Your task to perform on an android device: open app "McDonald's" (install if not already installed) and go to login screen Image 0: 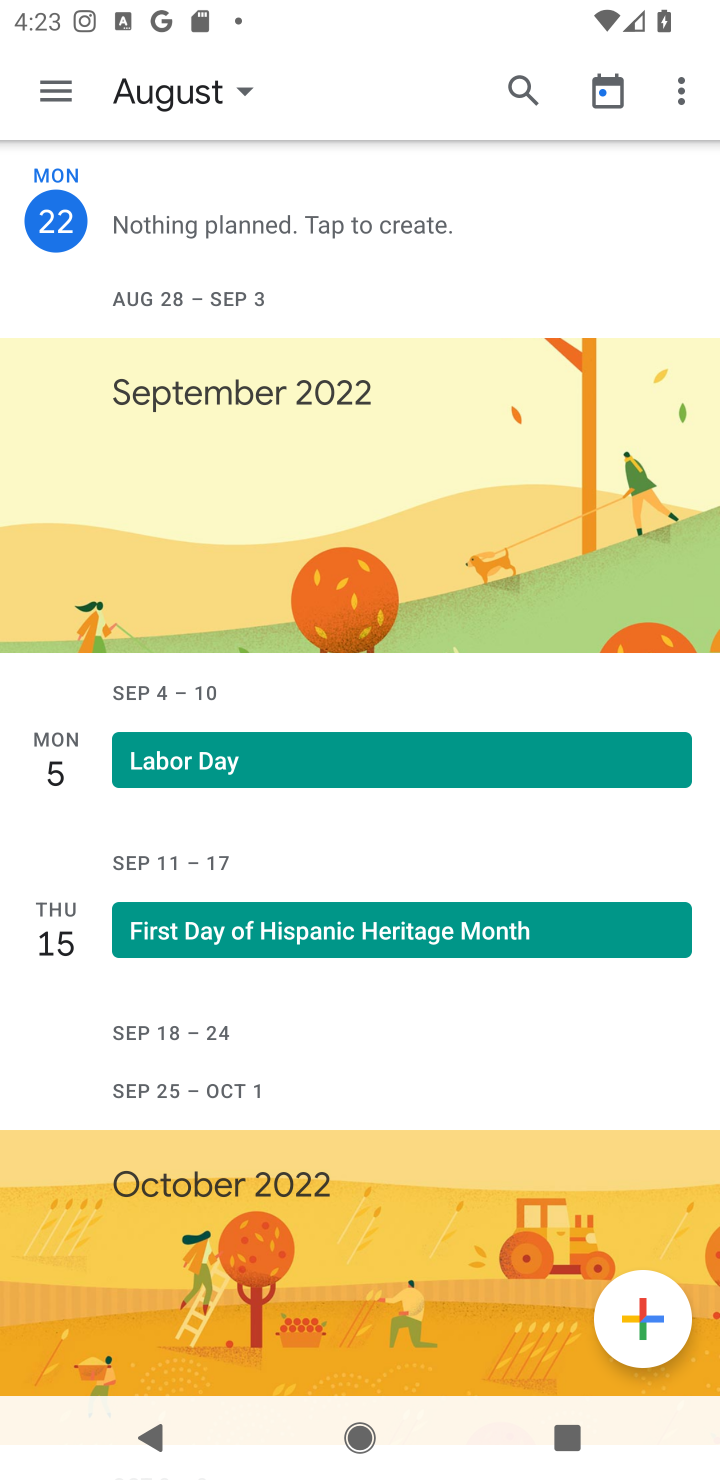
Step 0: press home button
Your task to perform on an android device: open app "McDonald's" (install if not already installed) and go to login screen Image 1: 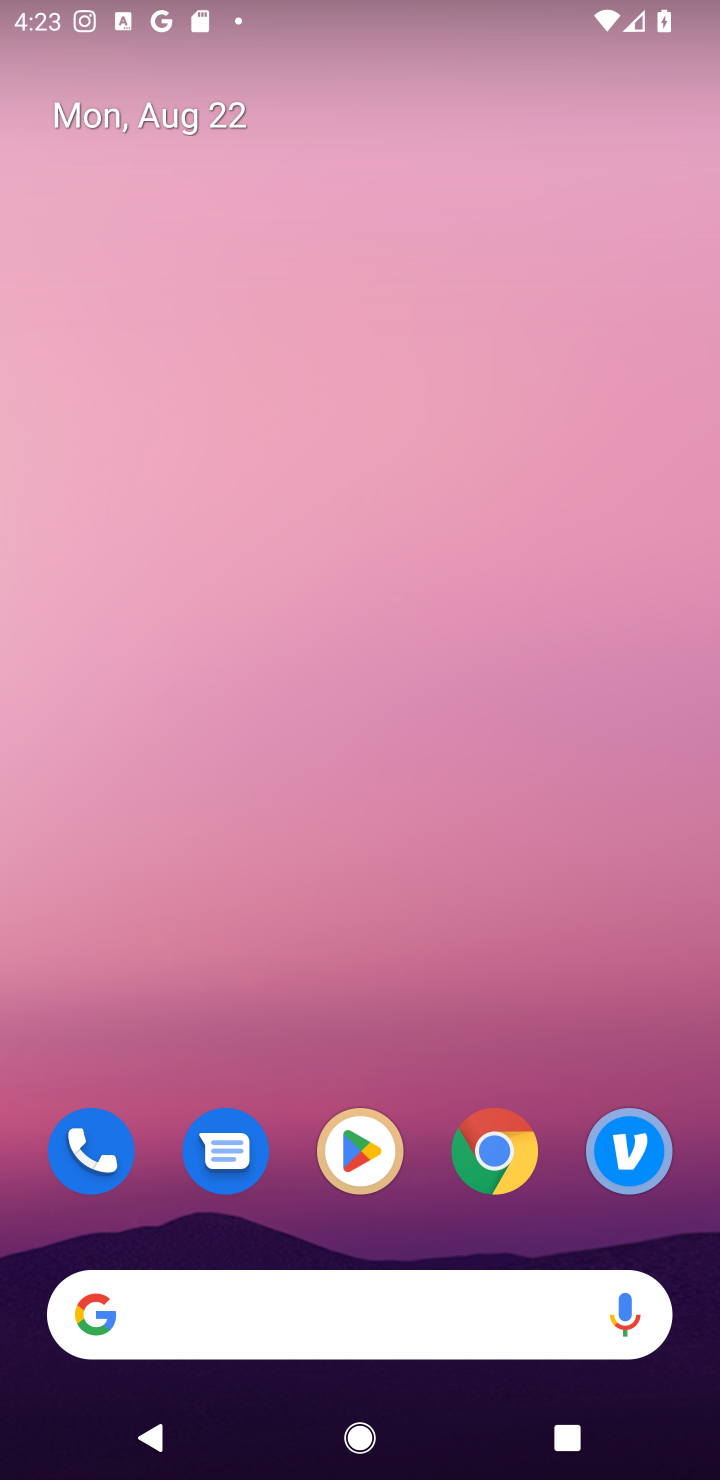
Step 1: click (362, 1158)
Your task to perform on an android device: open app "McDonald's" (install if not already installed) and go to login screen Image 2: 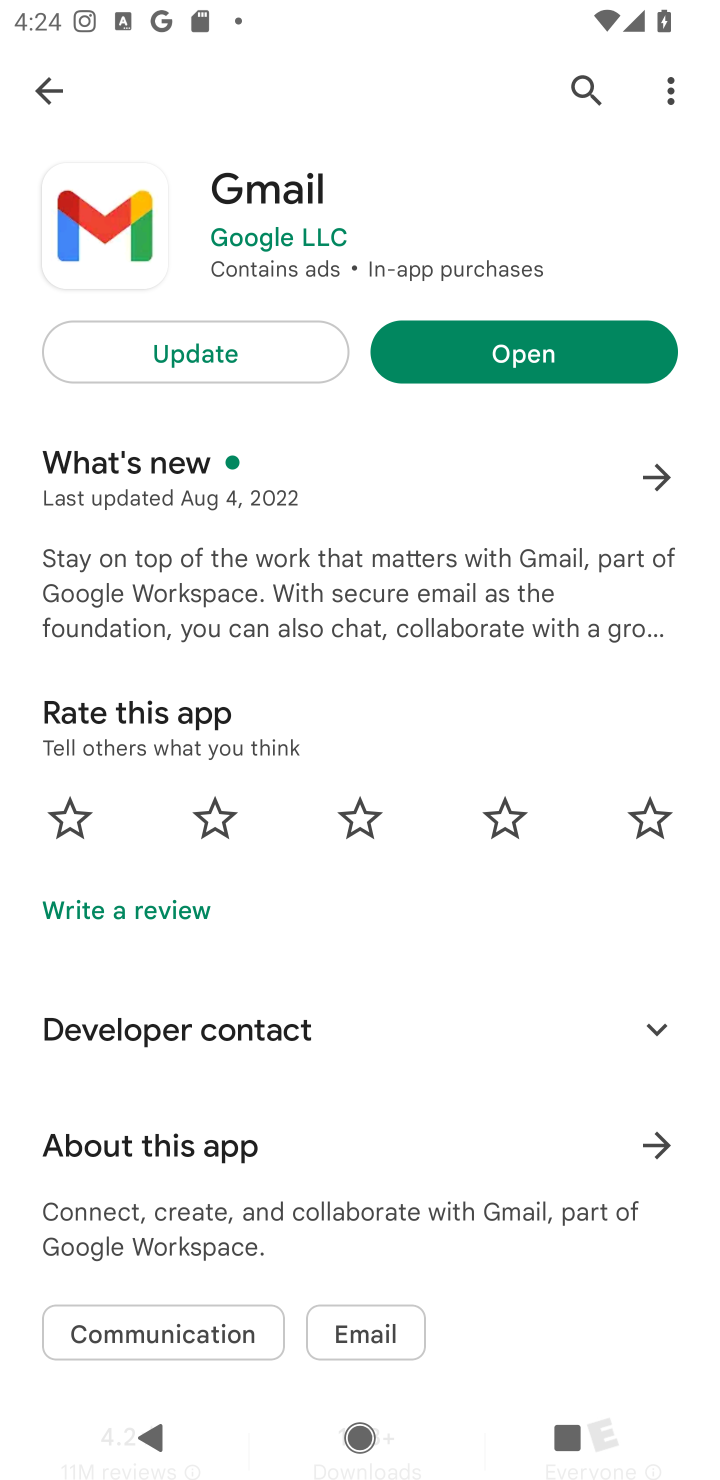
Step 2: click (589, 81)
Your task to perform on an android device: open app "McDonald's" (install if not already installed) and go to login screen Image 3: 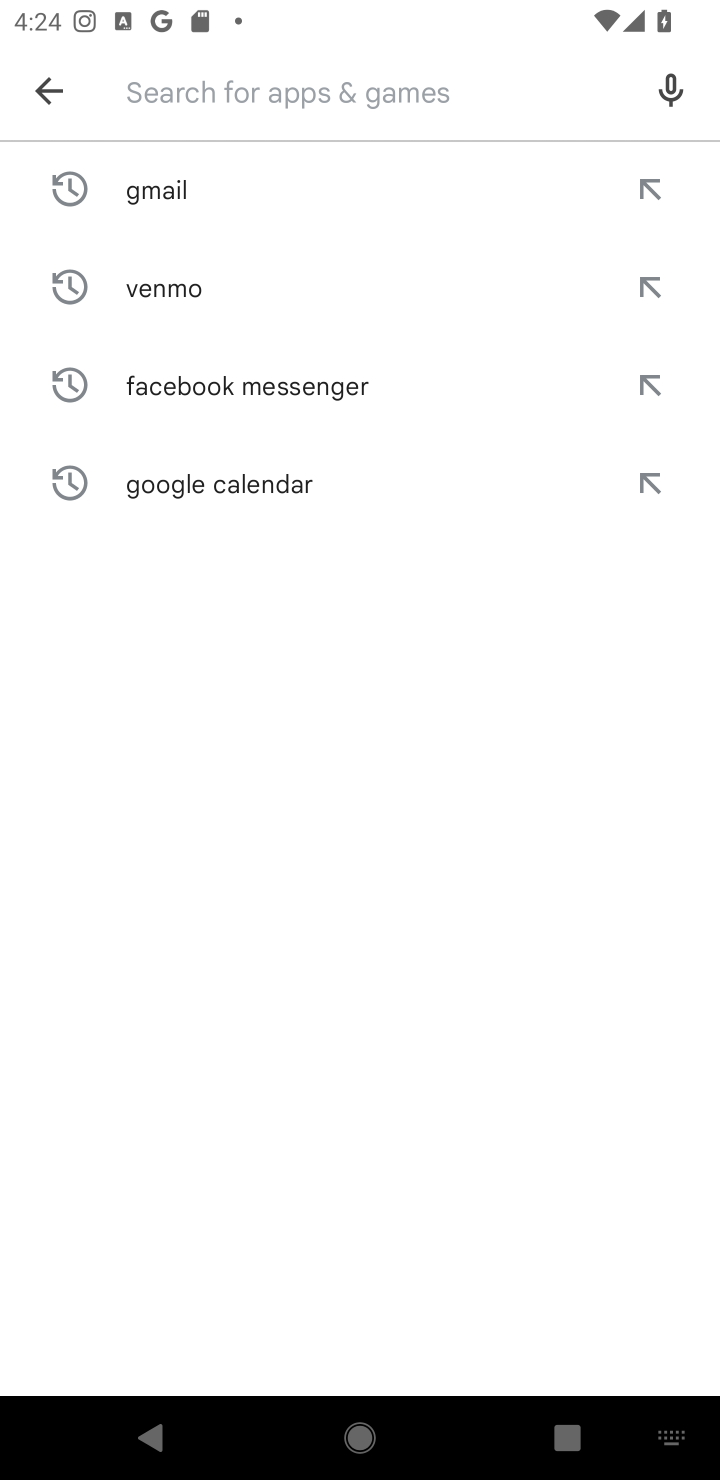
Step 3: type "McDonald's"
Your task to perform on an android device: open app "McDonald's" (install if not already installed) and go to login screen Image 4: 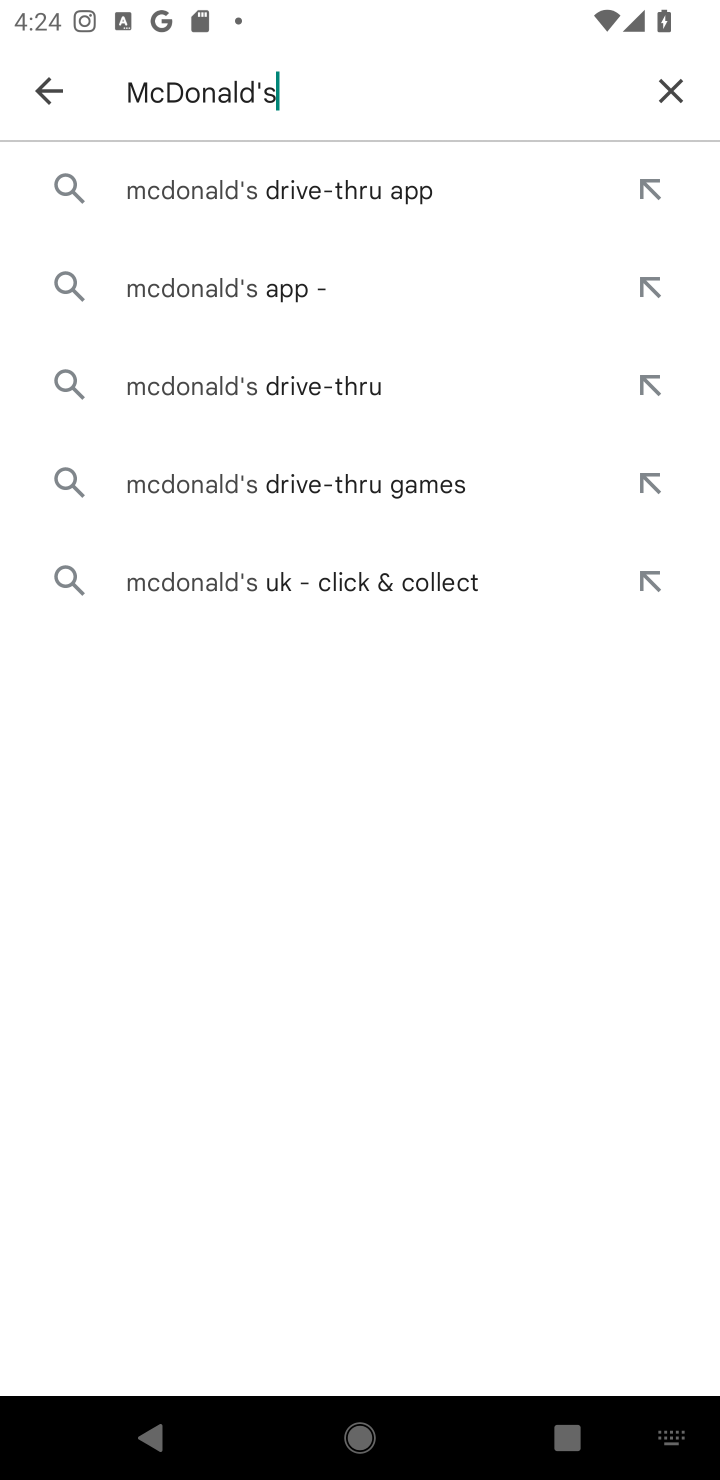
Step 4: click (283, 199)
Your task to perform on an android device: open app "McDonald's" (install if not already installed) and go to login screen Image 5: 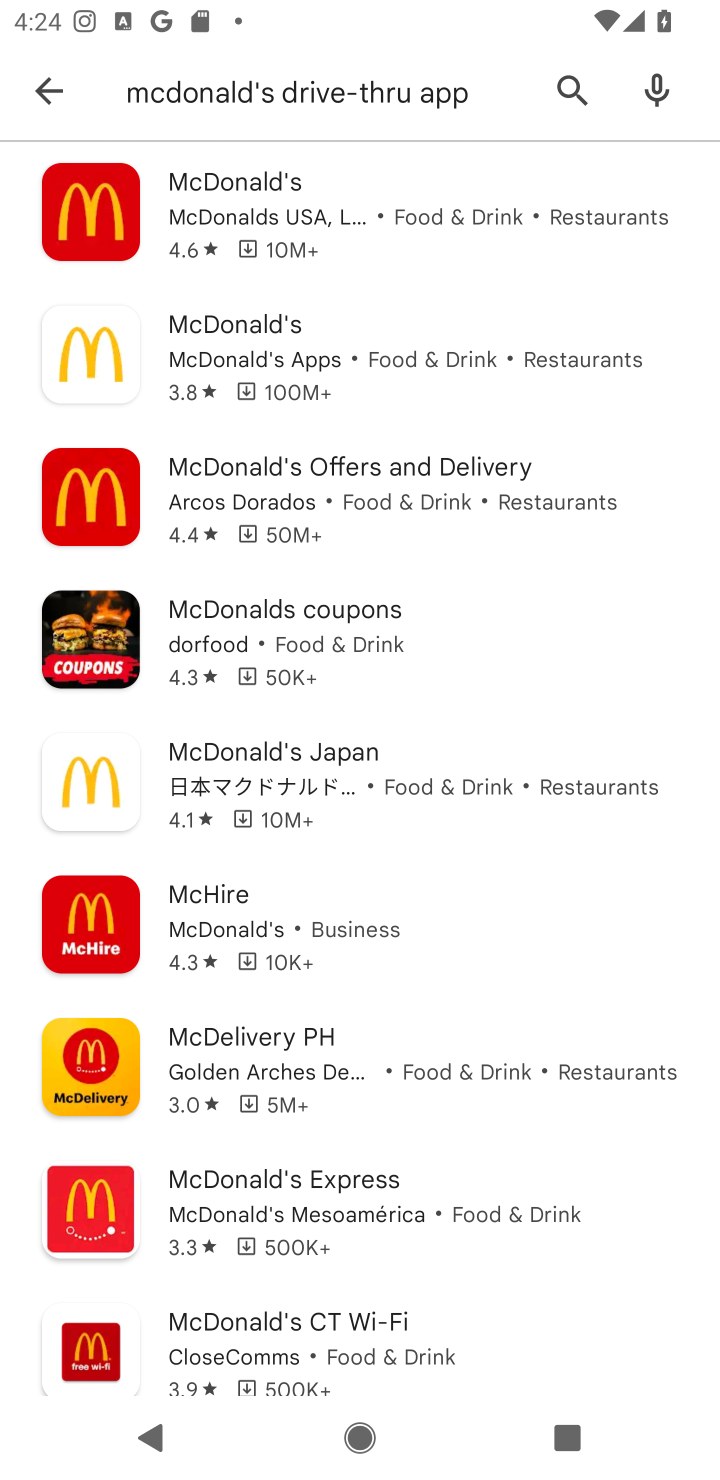
Step 5: click (314, 232)
Your task to perform on an android device: open app "McDonald's" (install if not already installed) and go to login screen Image 6: 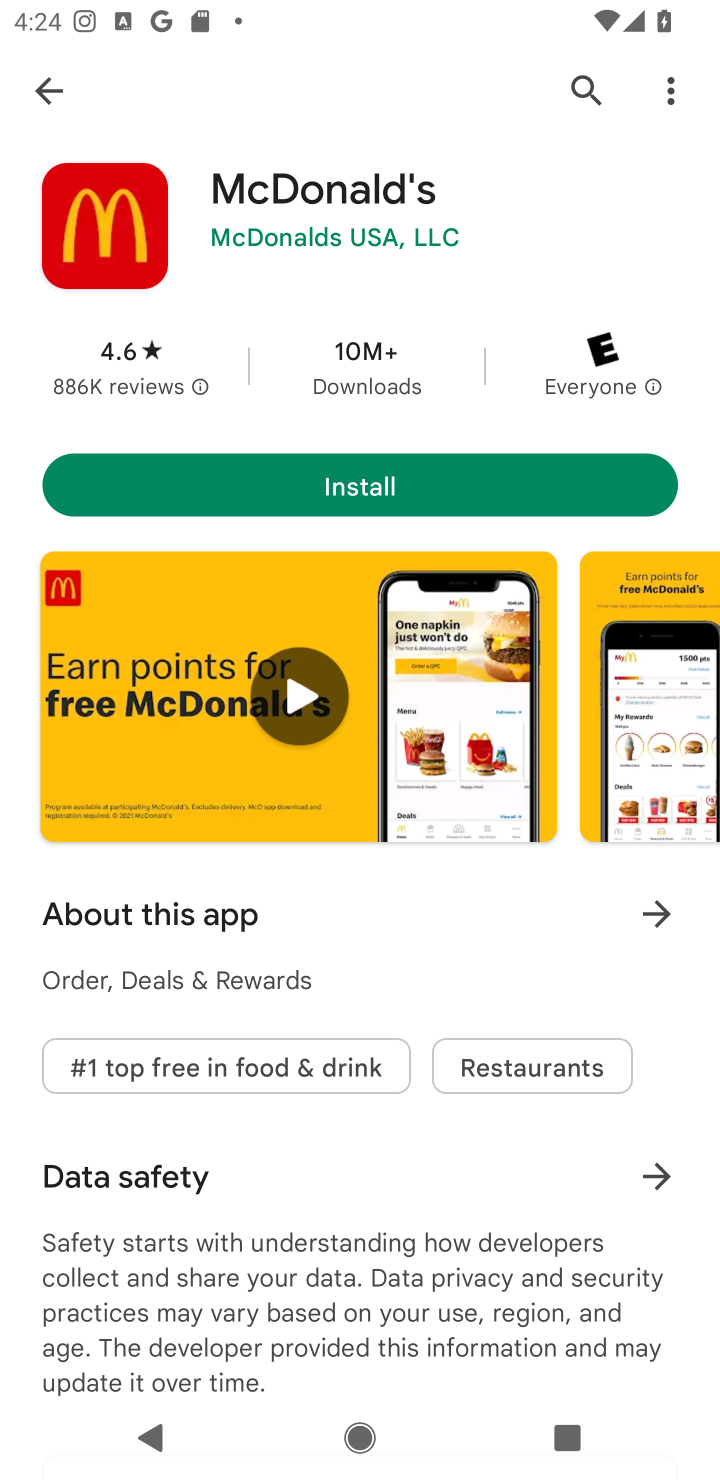
Step 6: click (386, 465)
Your task to perform on an android device: open app "McDonald's" (install if not already installed) and go to login screen Image 7: 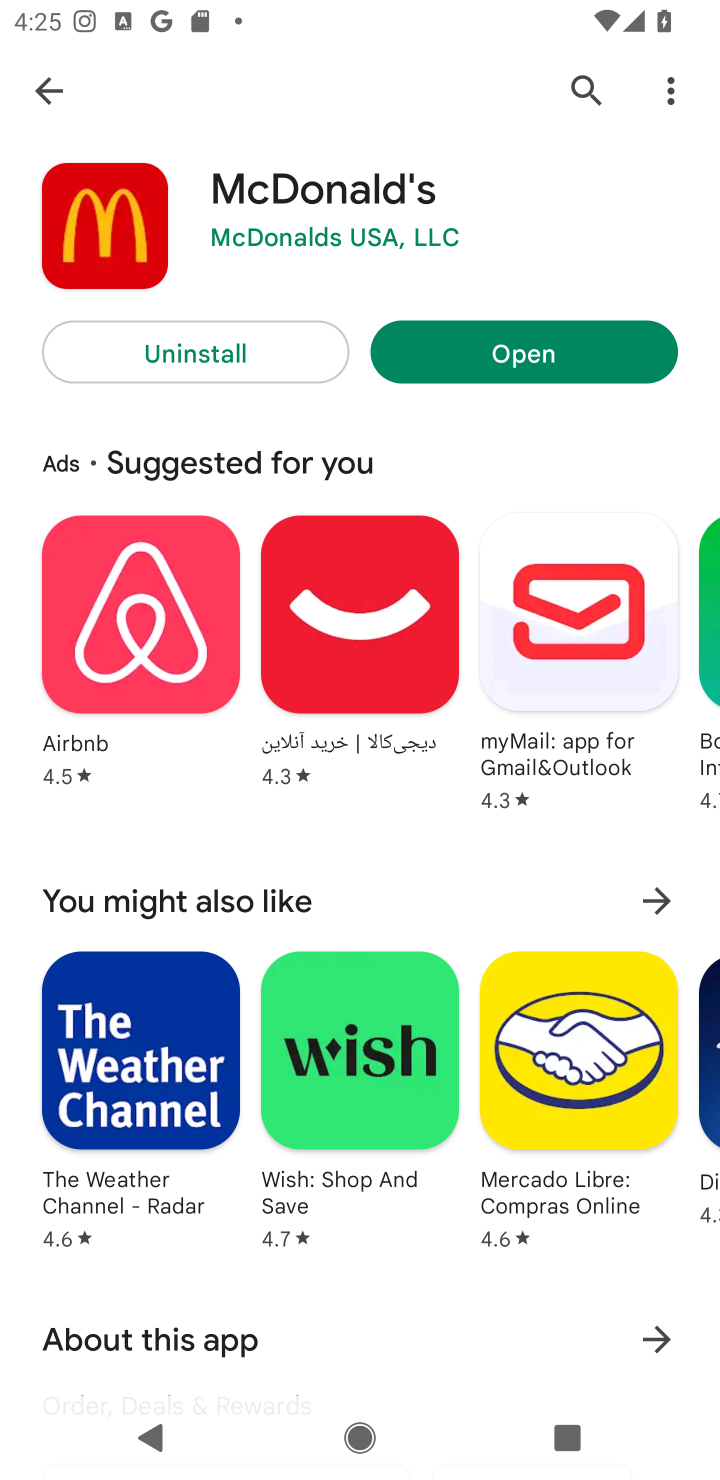
Step 7: click (572, 335)
Your task to perform on an android device: open app "McDonald's" (install if not already installed) and go to login screen Image 8: 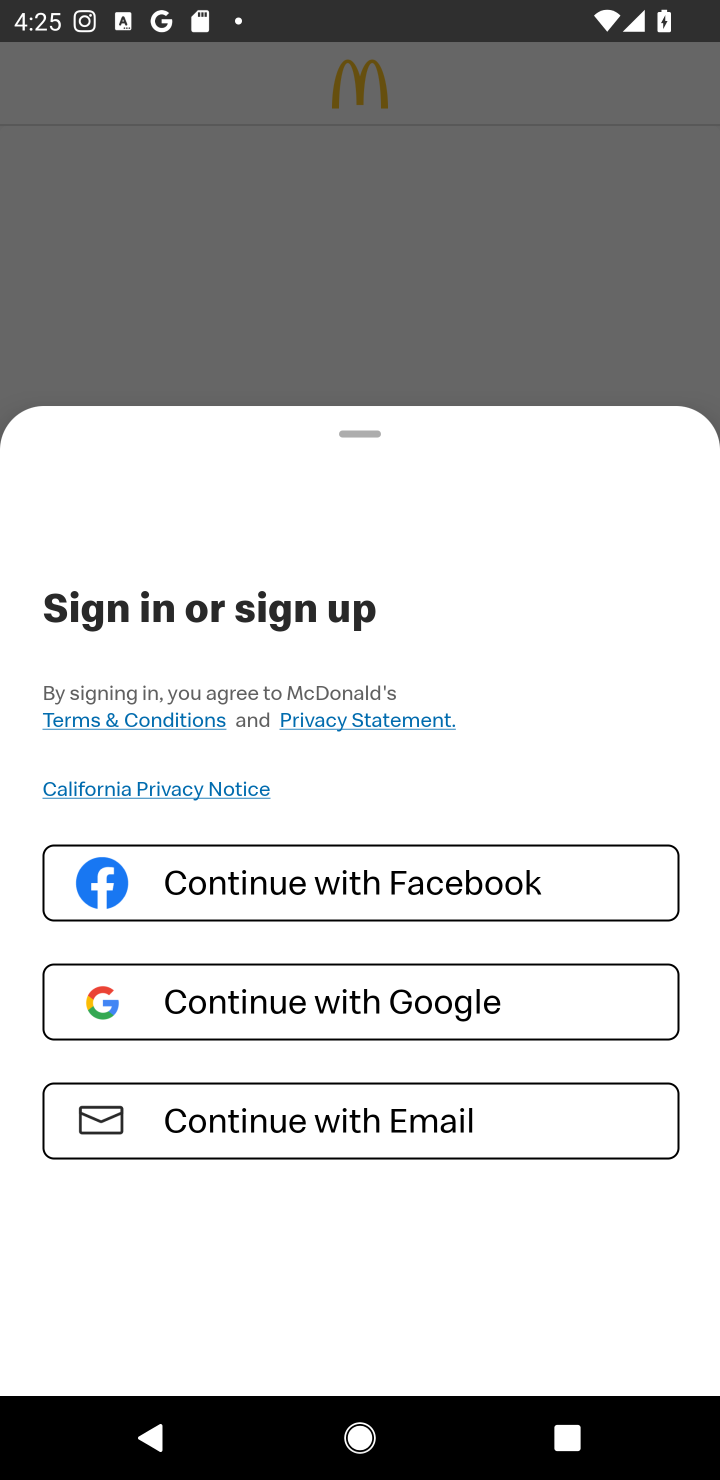
Step 8: task complete